Your task to perform on an android device: When is my next appointment? Image 0: 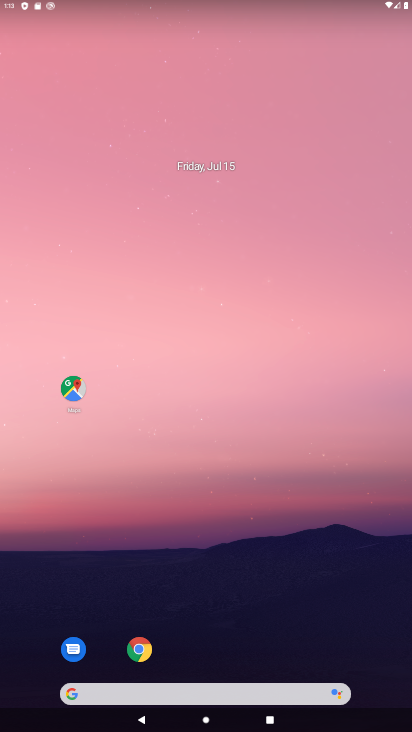
Step 0: drag from (217, 714) to (244, 25)
Your task to perform on an android device: When is my next appointment? Image 1: 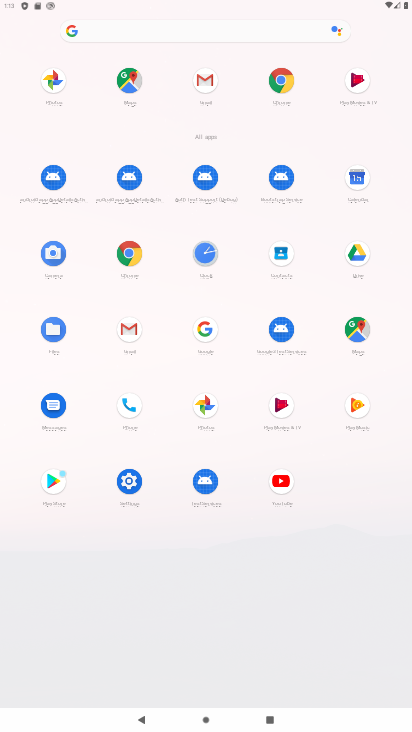
Step 1: click (364, 179)
Your task to perform on an android device: When is my next appointment? Image 2: 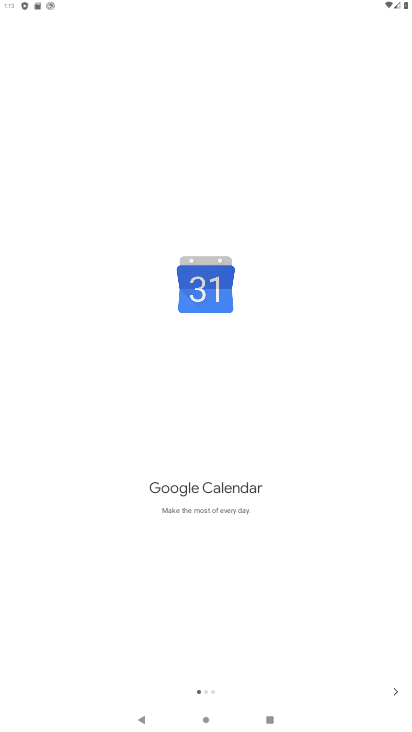
Step 2: click (389, 695)
Your task to perform on an android device: When is my next appointment? Image 3: 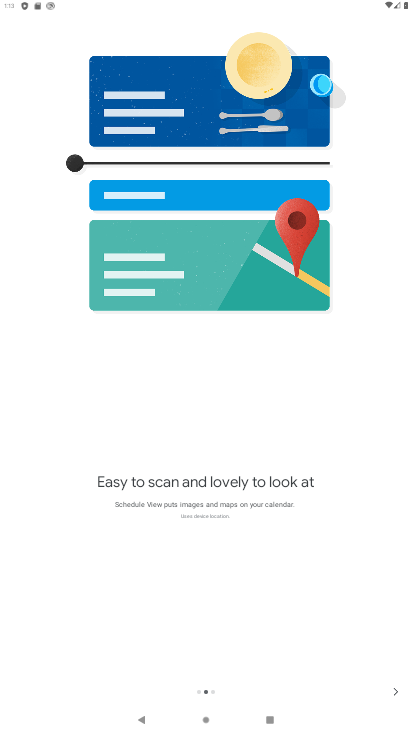
Step 3: click (390, 693)
Your task to perform on an android device: When is my next appointment? Image 4: 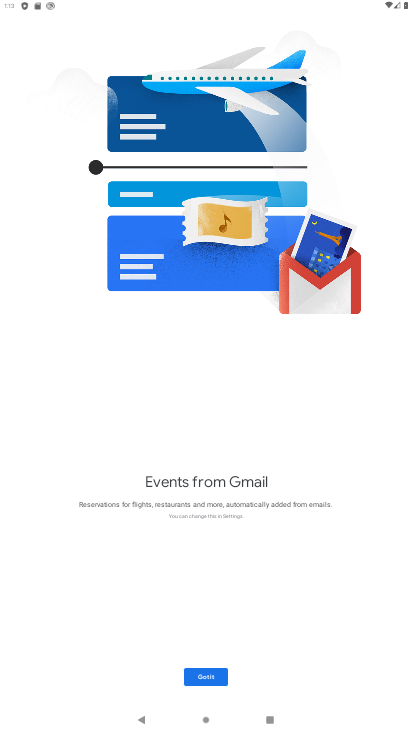
Step 4: click (217, 678)
Your task to perform on an android device: When is my next appointment? Image 5: 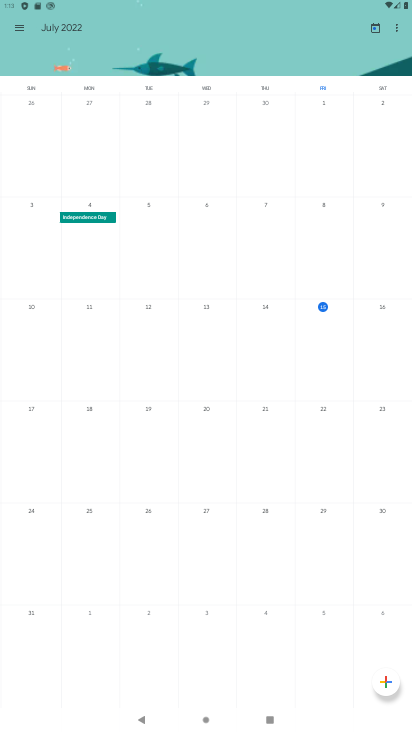
Step 5: click (91, 409)
Your task to perform on an android device: When is my next appointment? Image 6: 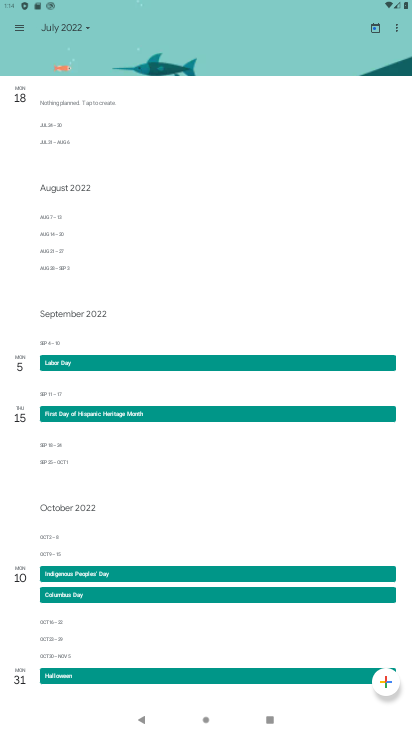
Step 6: task complete